Your task to perform on an android device: choose inbox layout in the gmail app Image 0: 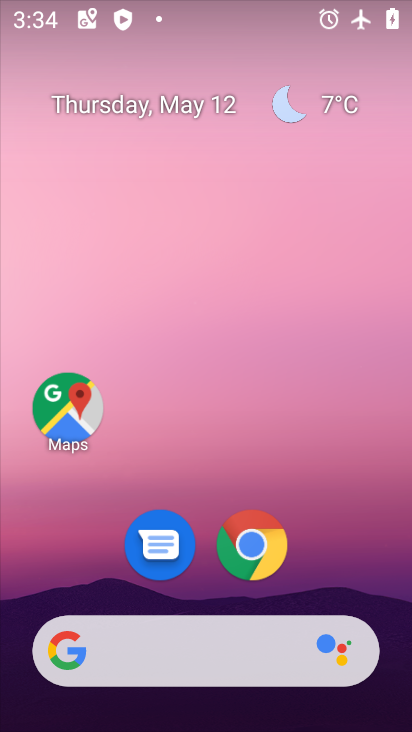
Step 0: drag from (397, 629) to (328, 161)
Your task to perform on an android device: choose inbox layout in the gmail app Image 1: 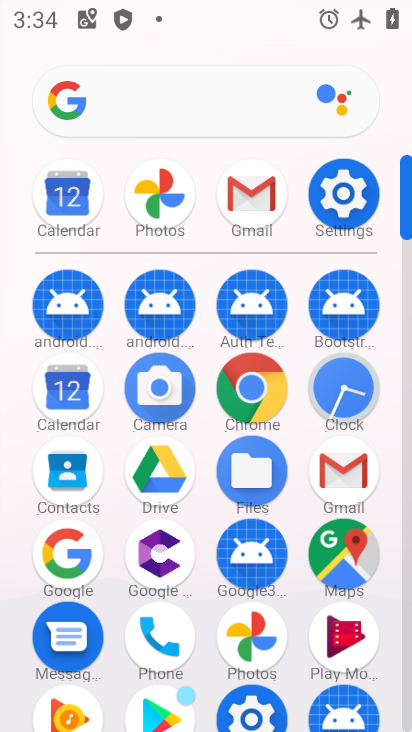
Step 1: click (342, 468)
Your task to perform on an android device: choose inbox layout in the gmail app Image 2: 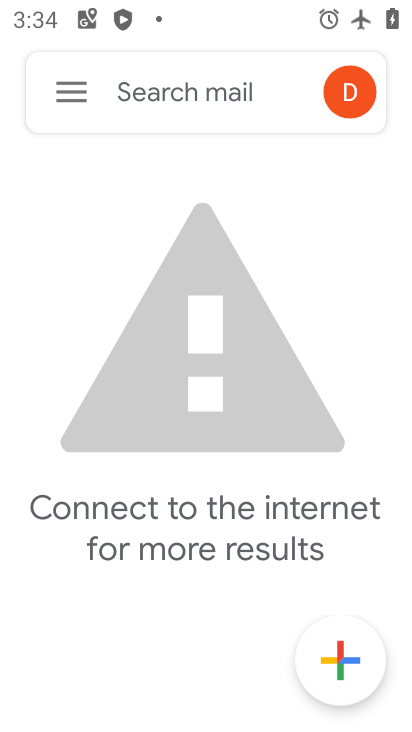
Step 2: click (74, 95)
Your task to perform on an android device: choose inbox layout in the gmail app Image 3: 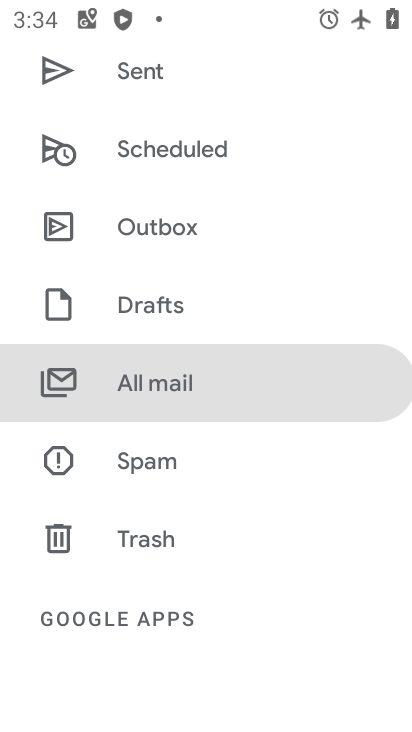
Step 3: drag from (237, 614) to (271, 111)
Your task to perform on an android device: choose inbox layout in the gmail app Image 4: 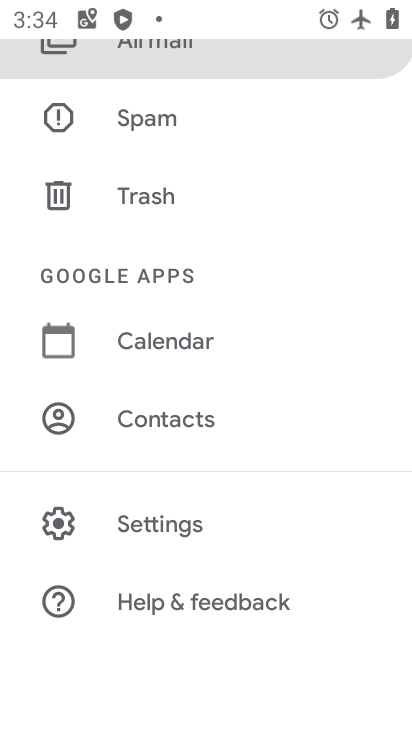
Step 4: click (125, 512)
Your task to perform on an android device: choose inbox layout in the gmail app Image 5: 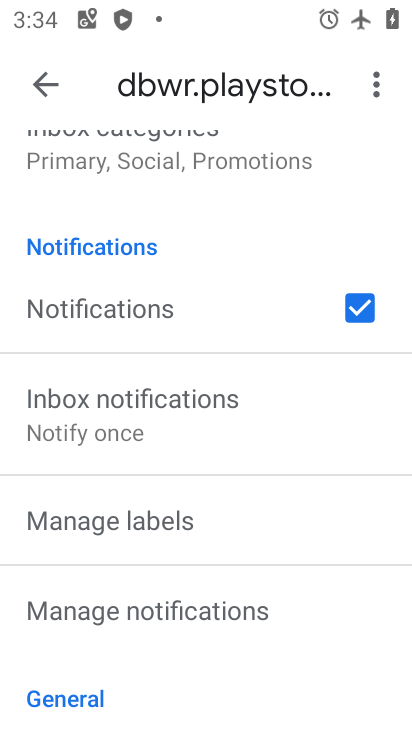
Step 5: drag from (234, 226) to (278, 626)
Your task to perform on an android device: choose inbox layout in the gmail app Image 6: 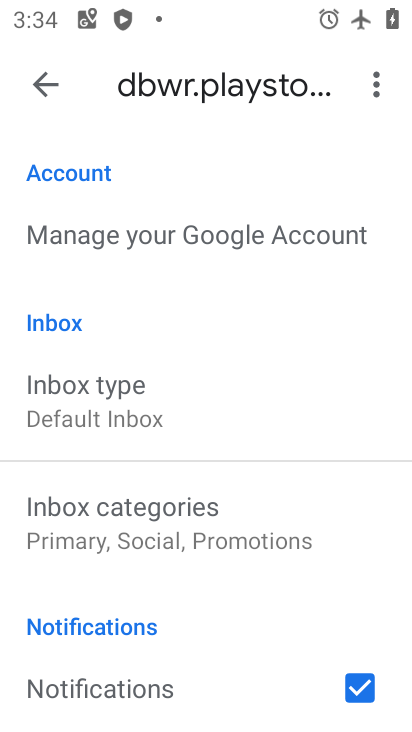
Step 6: click (86, 407)
Your task to perform on an android device: choose inbox layout in the gmail app Image 7: 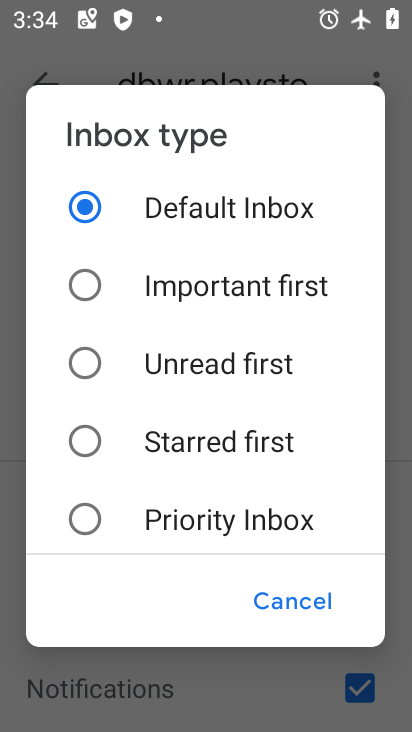
Step 7: click (83, 281)
Your task to perform on an android device: choose inbox layout in the gmail app Image 8: 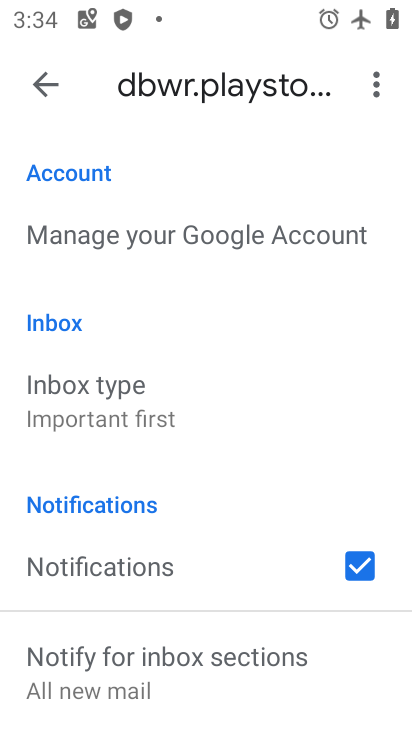
Step 8: task complete